Your task to perform on an android device: When is my next appointment? Image 0: 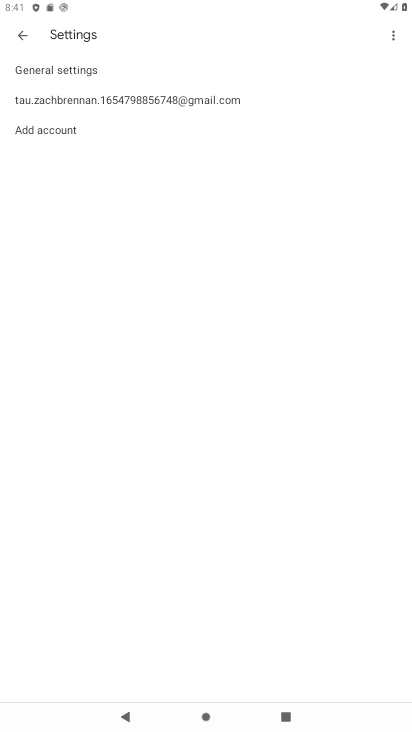
Step 0: press home button
Your task to perform on an android device: When is my next appointment? Image 1: 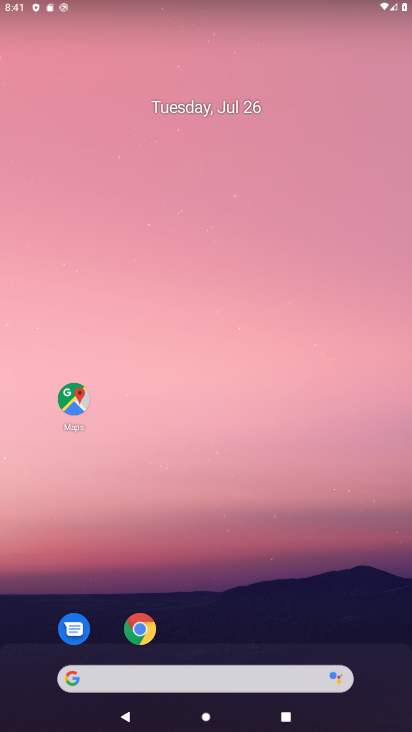
Step 1: drag from (238, 627) to (344, 34)
Your task to perform on an android device: When is my next appointment? Image 2: 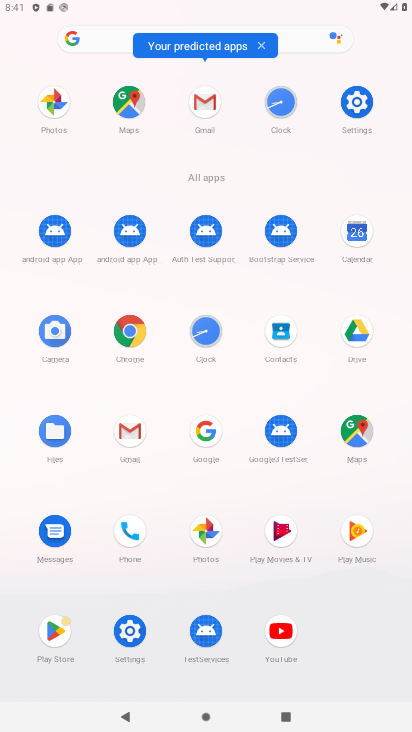
Step 2: click (361, 245)
Your task to perform on an android device: When is my next appointment? Image 3: 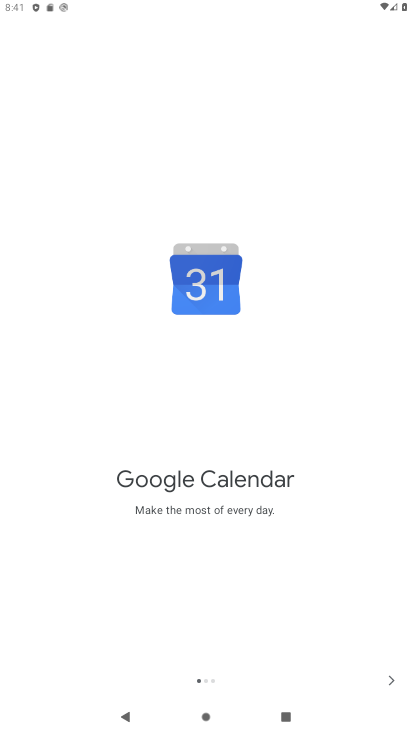
Step 3: click (388, 687)
Your task to perform on an android device: When is my next appointment? Image 4: 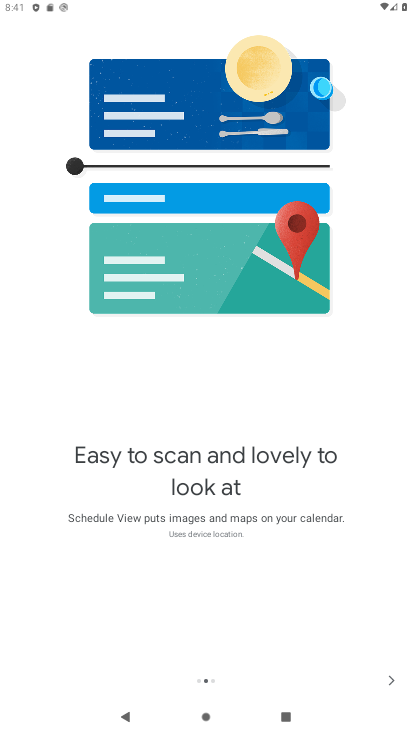
Step 4: click (388, 687)
Your task to perform on an android device: When is my next appointment? Image 5: 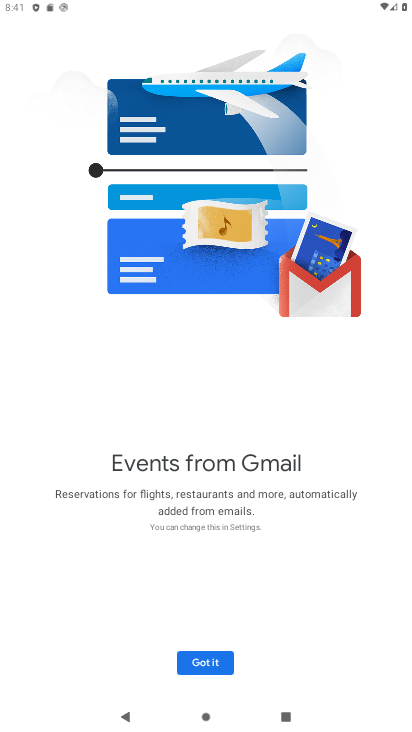
Step 5: click (209, 657)
Your task to perform on an android device: When is my next appointment? Image 6: 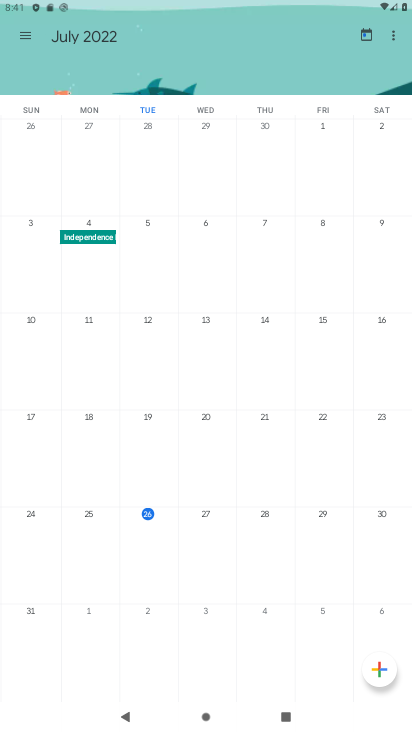
Step 6: click (27, 34)
Your task to perform on an android device: When is my next appointment? Image 7: 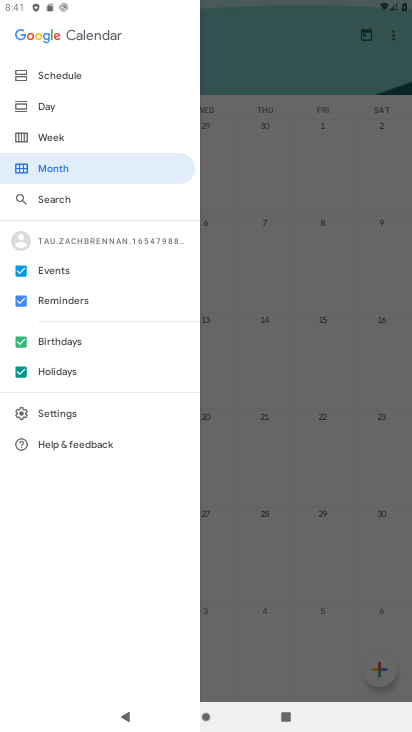
Step 7: click (26, 71)
Your task to perform on an android device: When is my next appointment? Image 8: 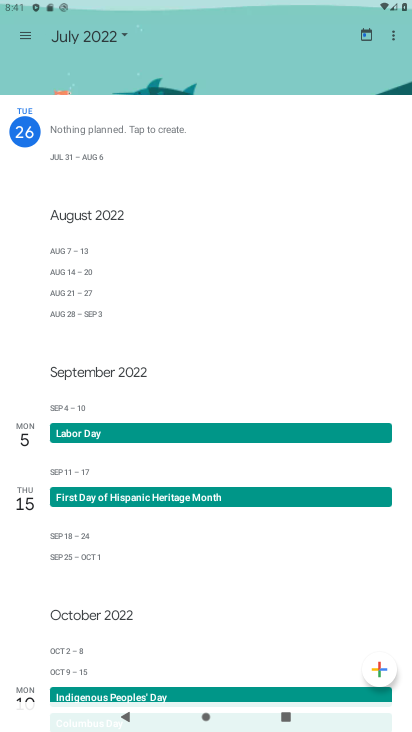
Step 8: task complete